Your task to perform on an android device: check out phone information Image 0: 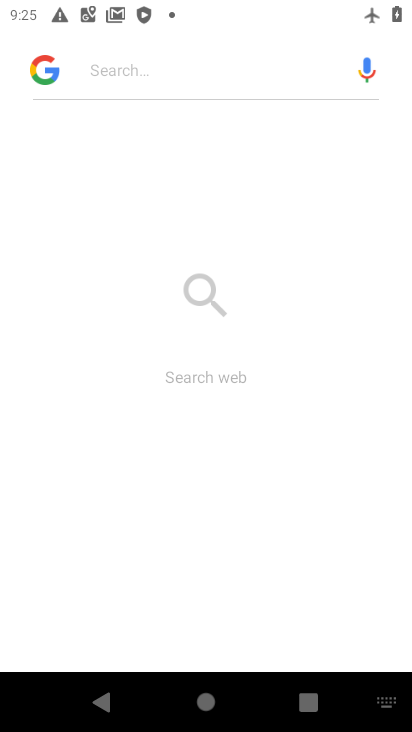
Step 0: press home button
Your task to perform on an android device: check out phone information Image 1: 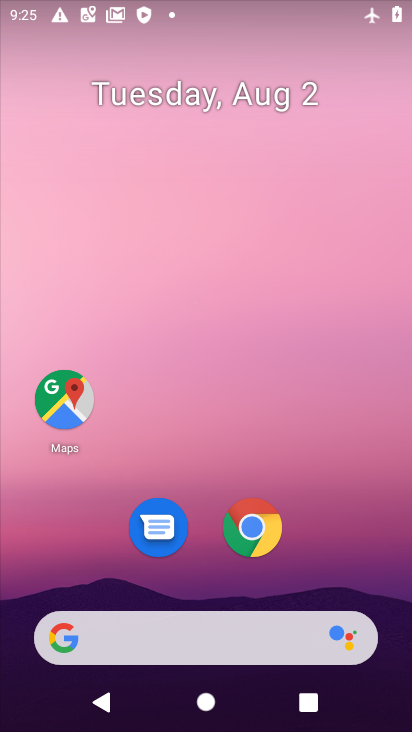
Step 1: drag from (180, 628) to (159, 235)
Your task to perform on an android device: check out phone information Image 2: 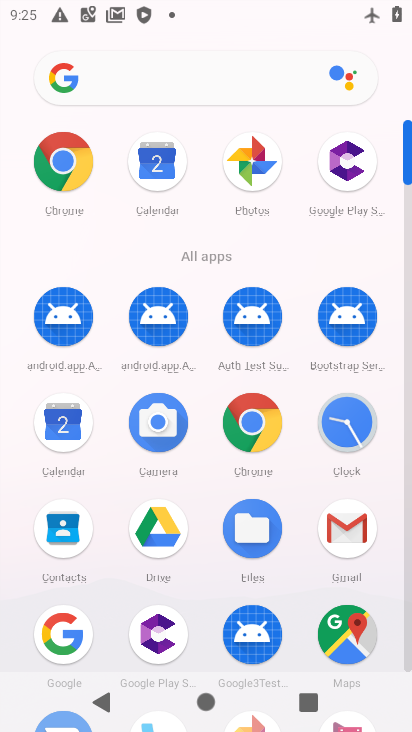
Step 2: drag from (209, 670) to (207, 288)
Your task to perform on an android device: check out phone information Image 3: 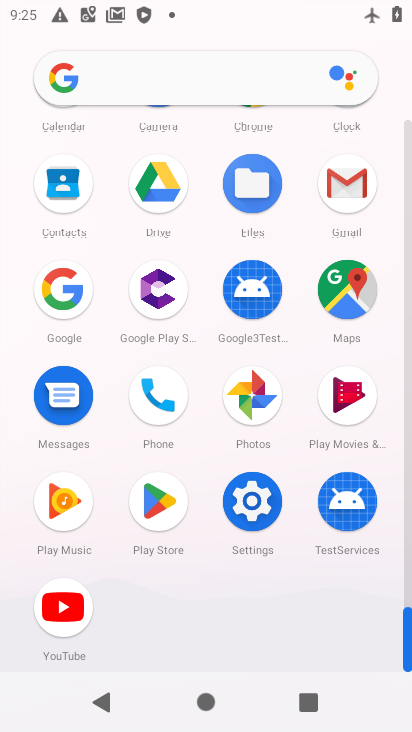
Step 3: click (156, 397)
Your task to perform on an android device: check out phone information Image 4: 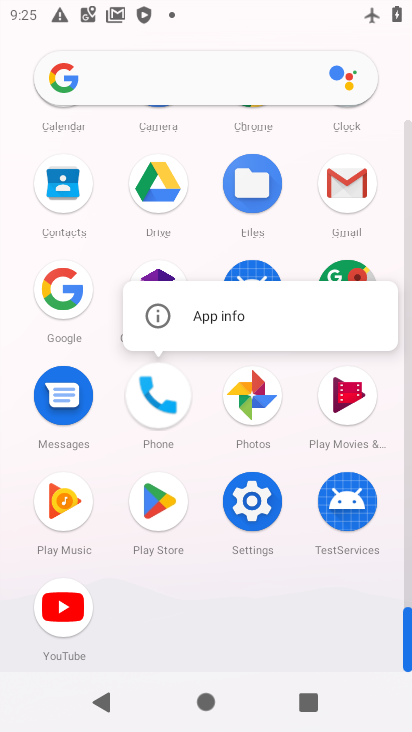
Step 4: click (173, 309)
Your task to perform on an android device: check out phone information Image 5: 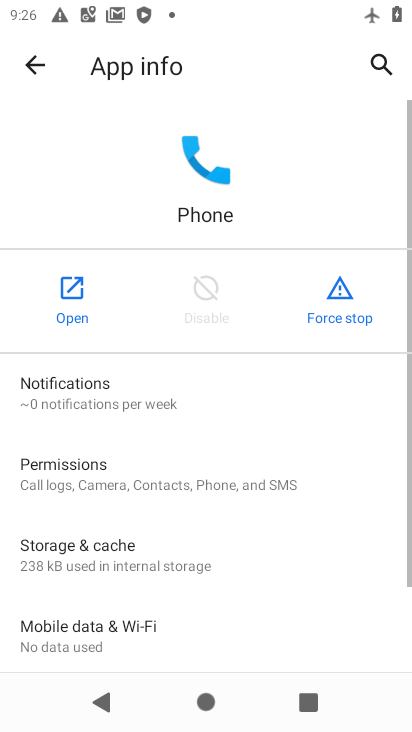
Step 5: drag from (171, 598) to (163, 309)
Your task to perform on an android device: check out phone information Image 6: 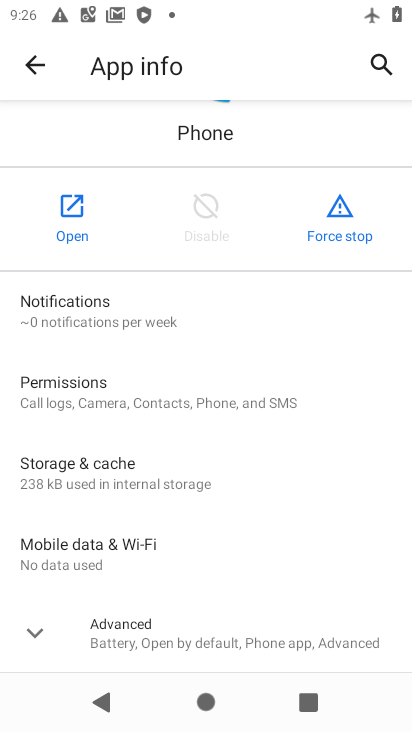
Step 6: click (100, 630)
Your task to perform on an android device: check out phone information Image 7: 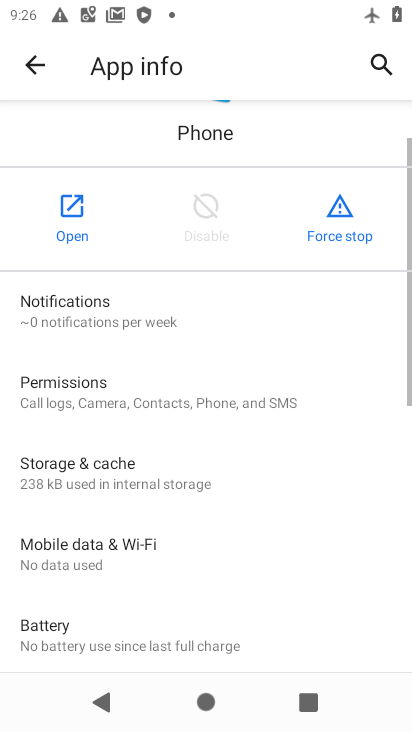
Step 7: task complete